Your task to perform on an android device: turn off location history Image 0: 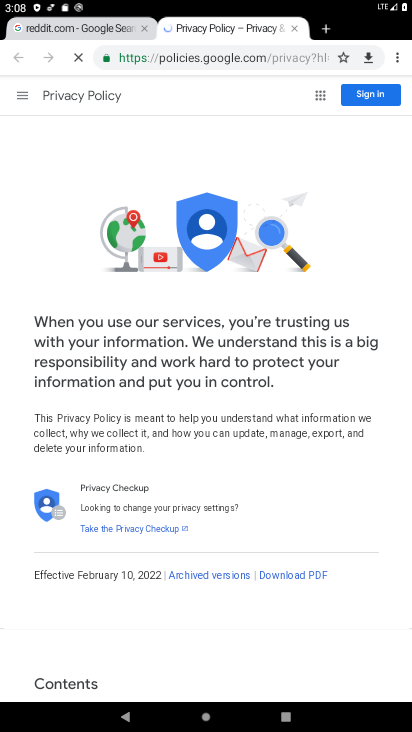
Step 0: press home button
Your task to perform on an android device: turn off location history Image 1: 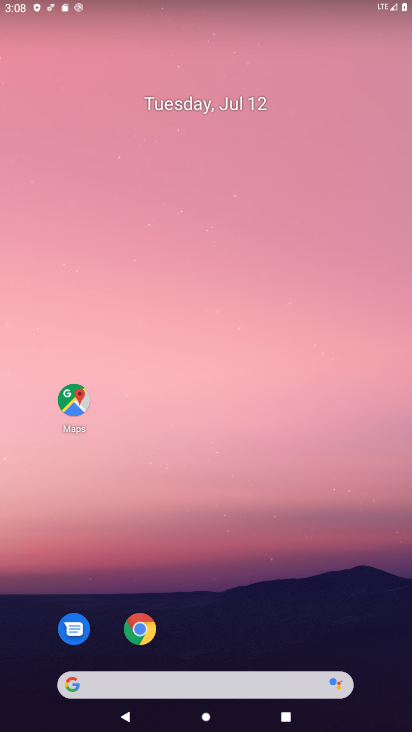
Step 1: drag from (252, 656) to (181, 131)
Your task to perform on an android device: turn off location history Image 2: 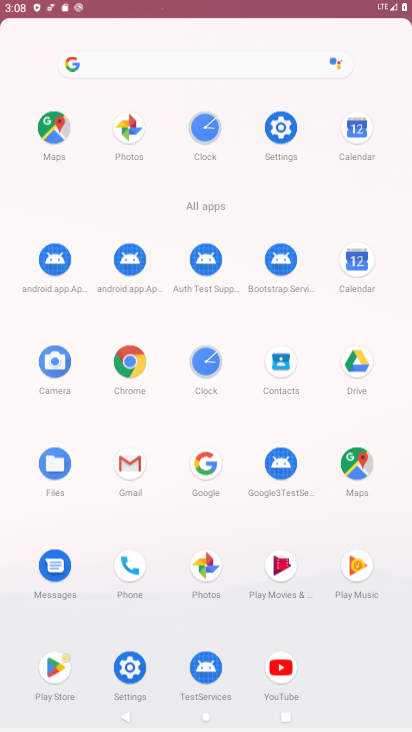
Step 2: drag from (189, 599) to (176, 77)
Your task to perform on an android device: turn off location history Image 3: 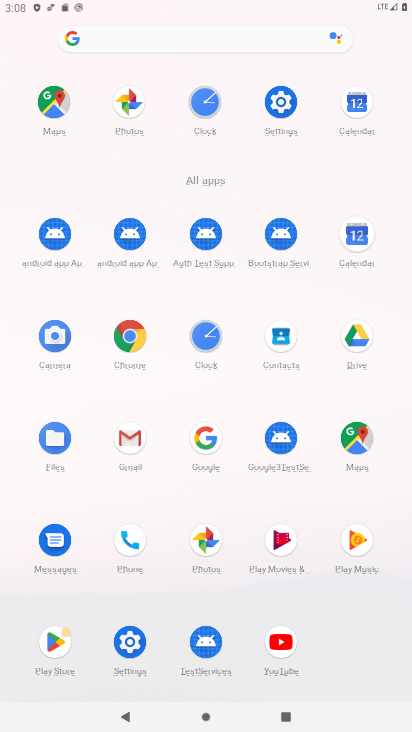
Step 3: click (284, 101)
Your task to perform on an android device: turn off location history Image 4: 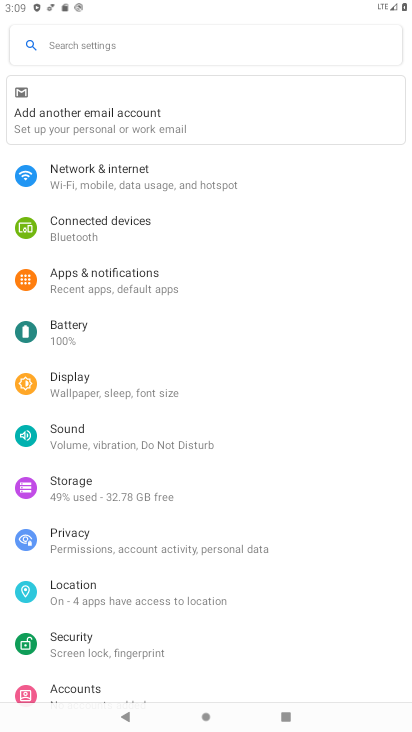
Step 4: click (78, 591)
Your task to perform on an android device: turn off location history Image 5: 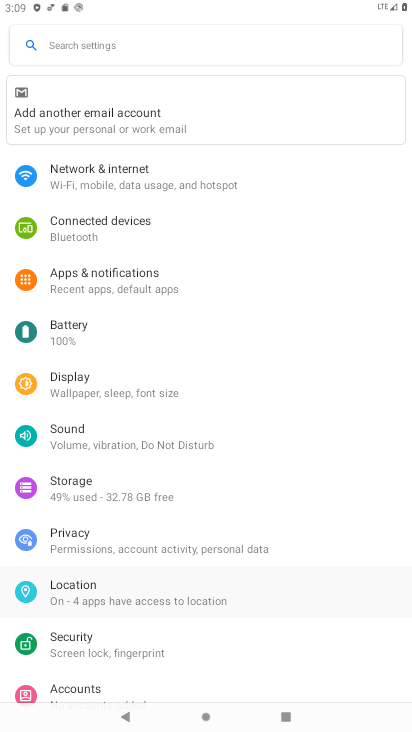
Step 5: click (81, 587)
Your task to perform on an android device: turn off location history Image 6: 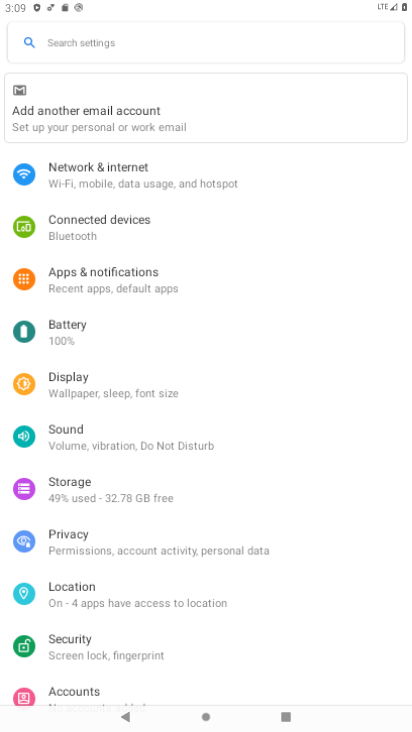
Step 6: click (89, 587)
Your task to perform on an android device: turn off location history Image 7: 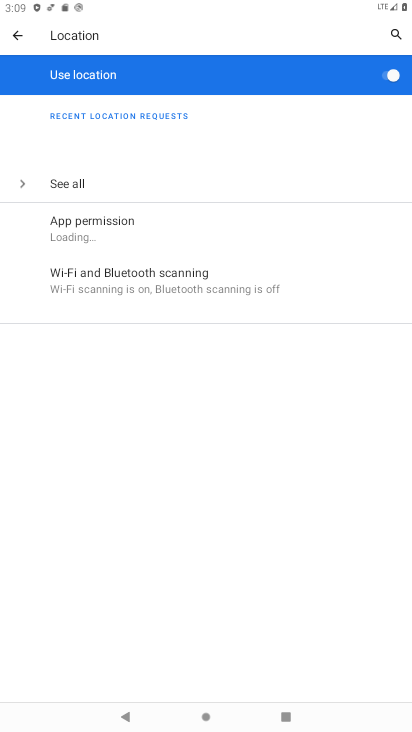
Step 7: click (89, 587)
Your task to perform on an android device: turn off location history Image 8: 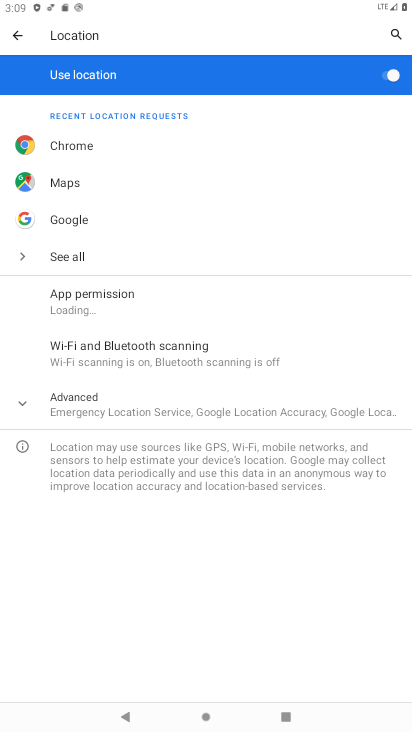
Step 8: click (74, 401)
Your task to perform on an android device: turn off location history Image 9: 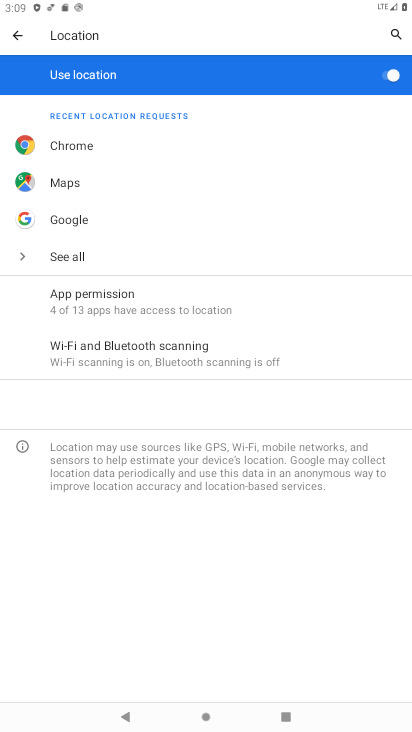
Step 9: click (74, 401)
Your task to perform on an android device: turn off location history Image 10: 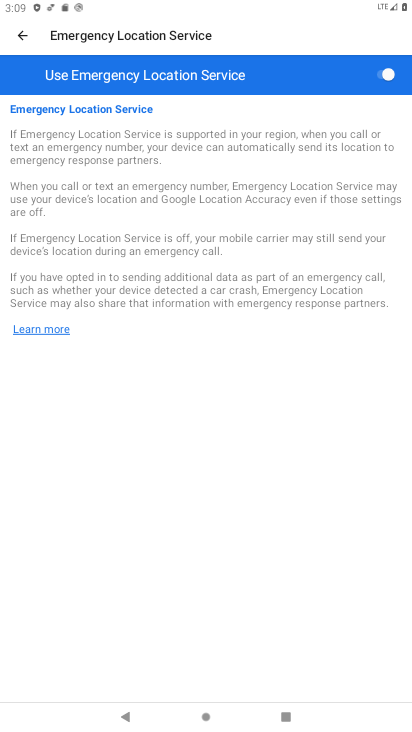
Step 10: click (27, 31)
Your task to perform on an android device: turn off location history Image 11: 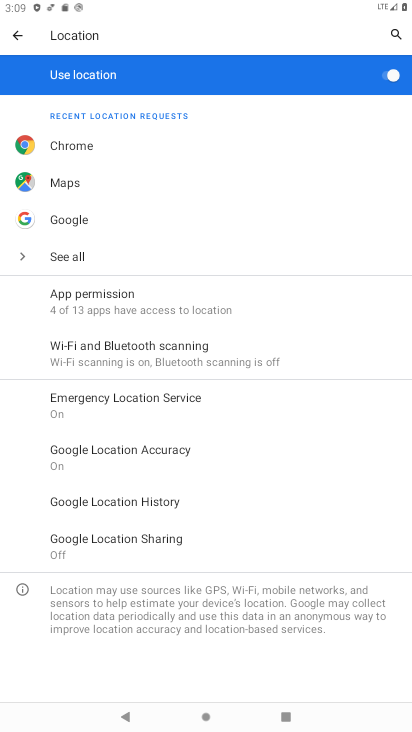
Step 11: click (122, 500)
Your task to perform on an android device: turn off location history Image 12: 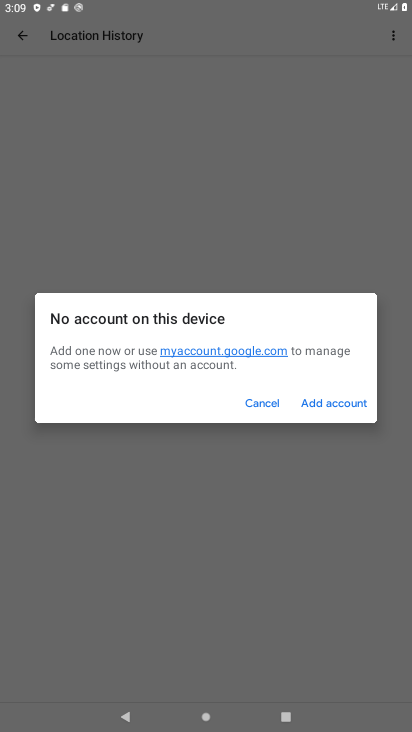
Step 12: click (269, 402)
Your task to perform on an android device: turn off location history Image 13: 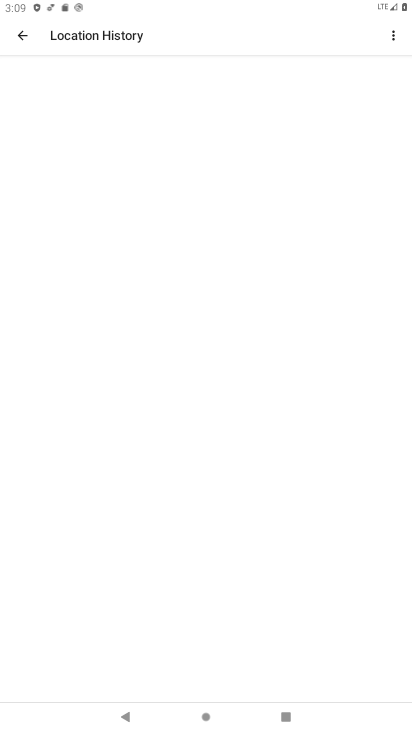
Step 13: click (268, 401)
Your task to perform on an android device: turn off location history Image 14: 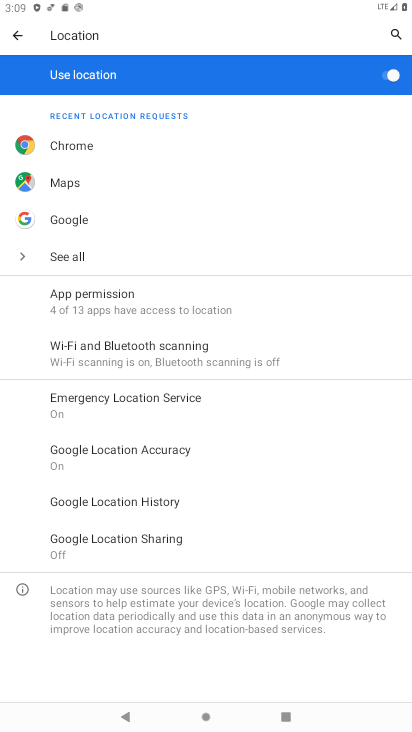
Step 14: click (129, 502)
Your task to perform on an android device: turn off location history Image 15: 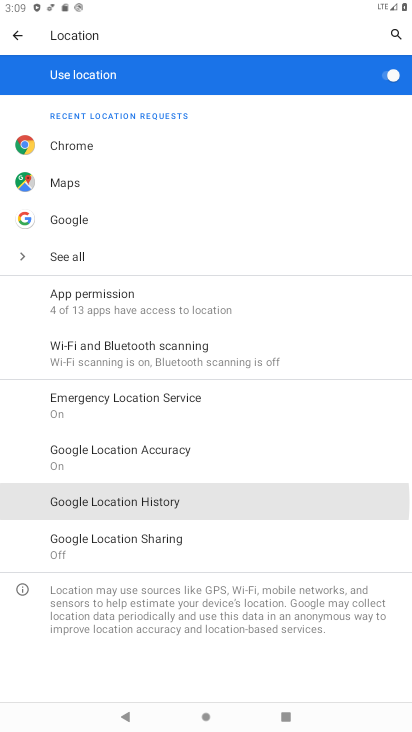
Step 15: click (129, 502)
Your task to perform on an android device: turn off location history Image 16: 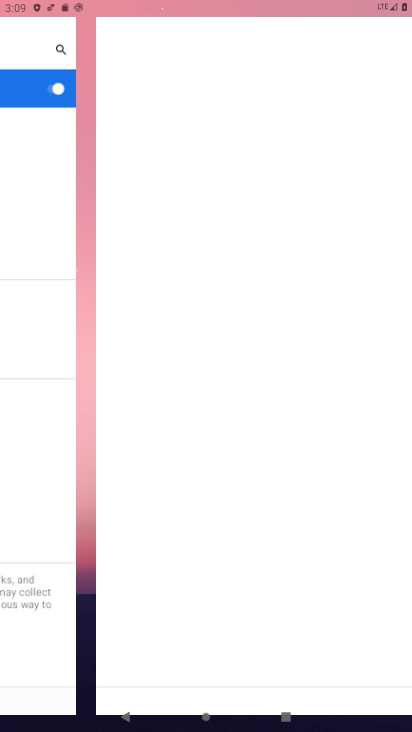
Step 16: click (132, 502)
Your task to perform on an android device: turn off location history Image 17: 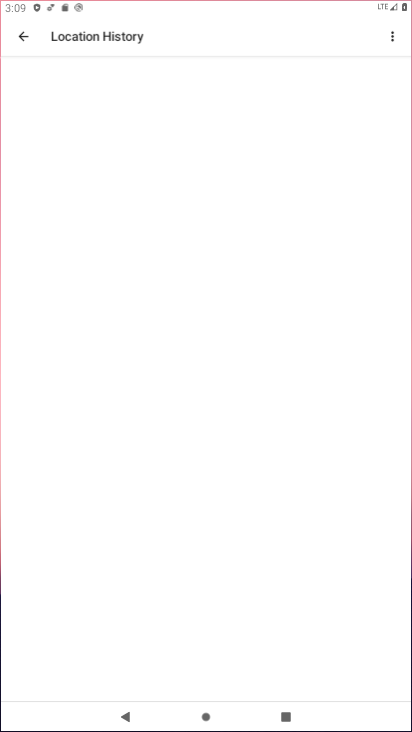
Step 17: click (132, 502)
Your task to perform on an android device: turn off location history Image 18: 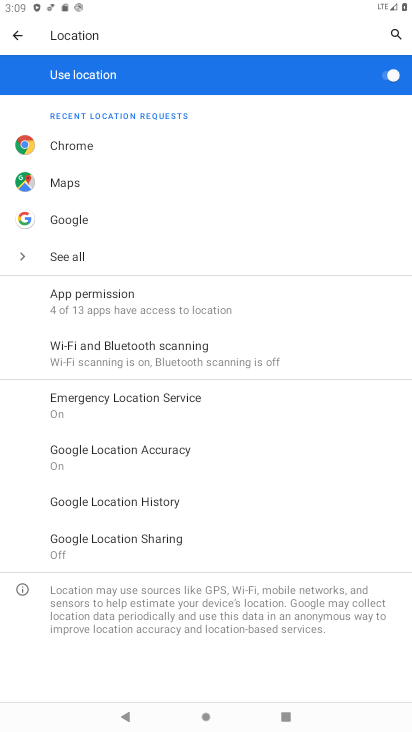
Step 18: click (150, 505)
Your task to perform on an android device: turn off location history Image 19: 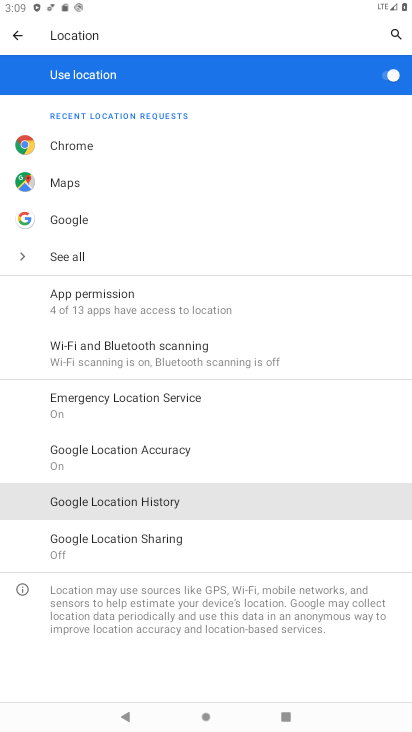
Step 19: click (150, 505)
Your task to perform on an android device: turn off location history Image 20: 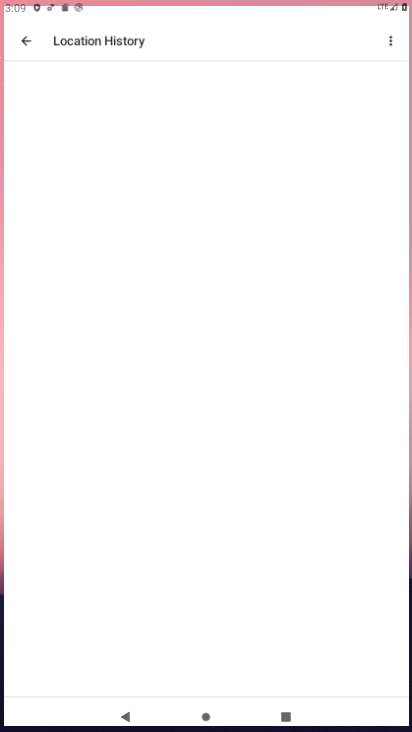
Step 20: click (150, 505)
Your task to perform on an android device: turn off location history Image 21: 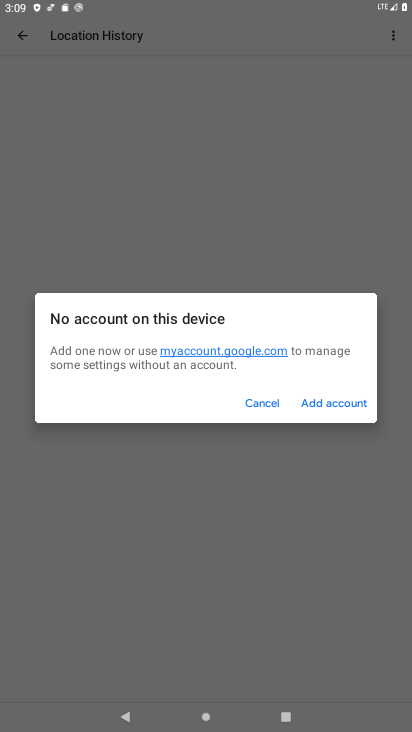
Step 21: click (236, 413)
Your task to perform on an android device: turn off location history Image 22: 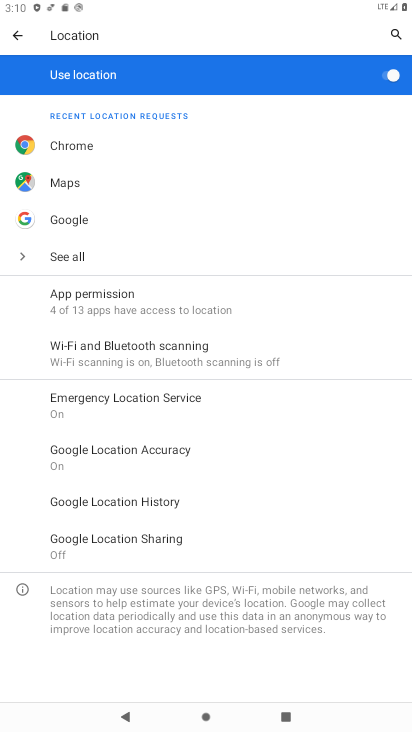
Step 22: task complete